Your task to perform on an android device: open a bookmark in the chrome app Image 0: 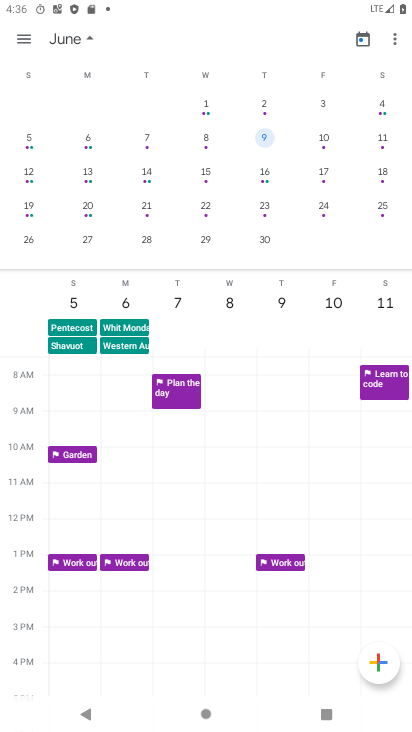
Step 0: press home button
Your task to perform on an android device: open a bookmark in the chrome app Image 1: 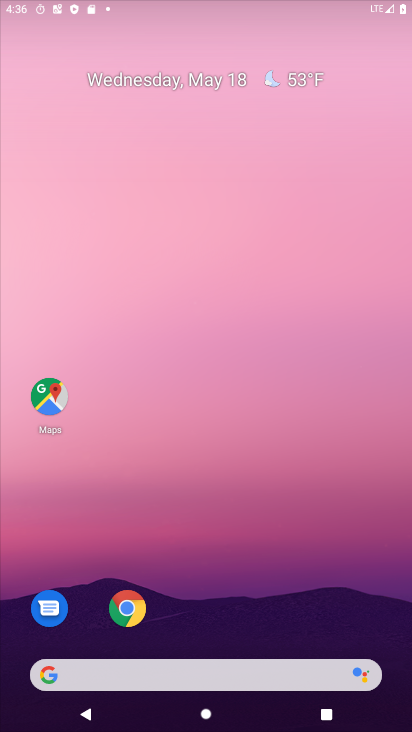
Step 1: drag from (315, 652) to (330, 19)
Your task to perform on an android device: open a bookmark in the chrome app Image 2: 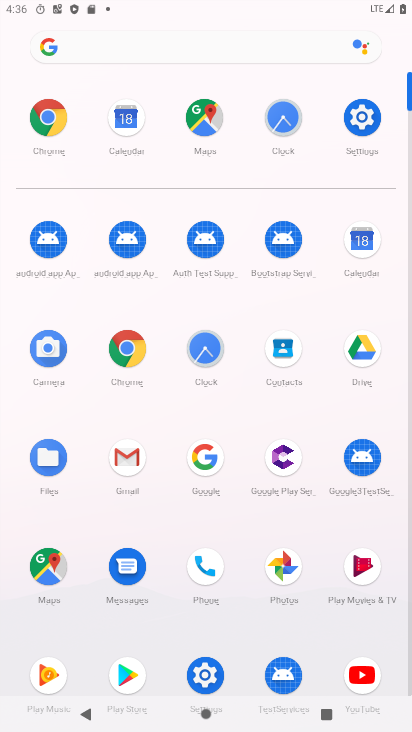
Step 2: click (132, 357)
Your task to perform on an android device: open a bookmark in the chrome app Image 3: 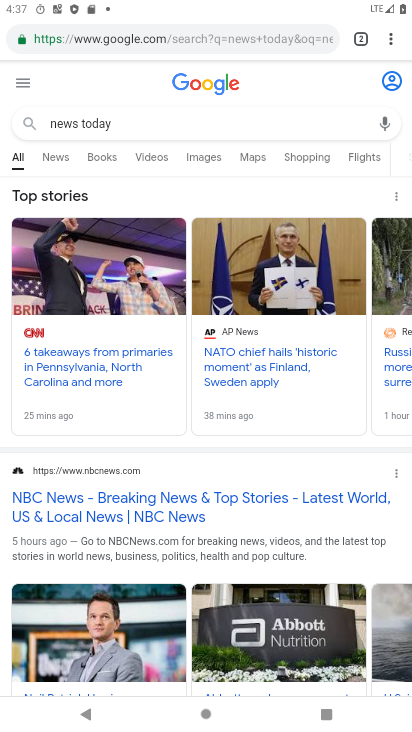
Step 3: click (397, 44)
Your task to perform on an android device: open a bookmark in the chrome app Image 4: 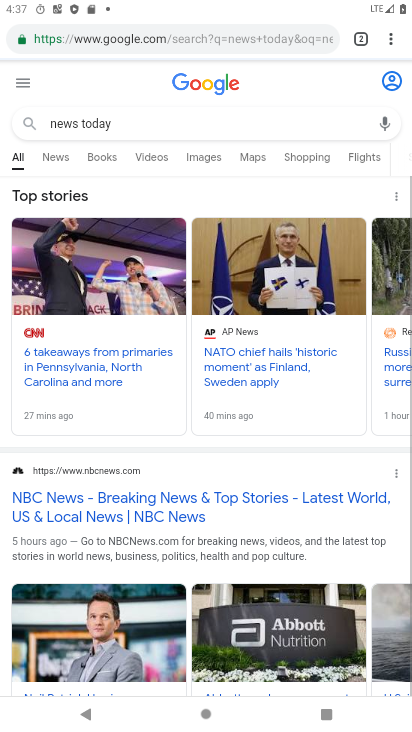
Step 4: click (389, 45)
Your task to perform on an android device: open a bookmark in the chrome app Image 5: 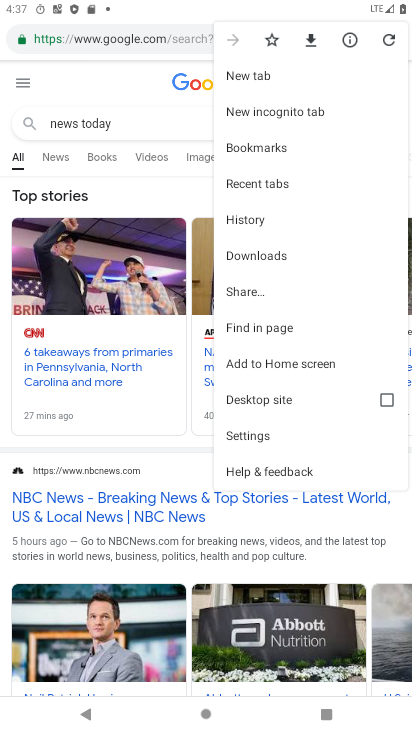
Step 5: click (315, 143)
Your task to perform on an android device: open a bookmark in the chrome app Image 6: 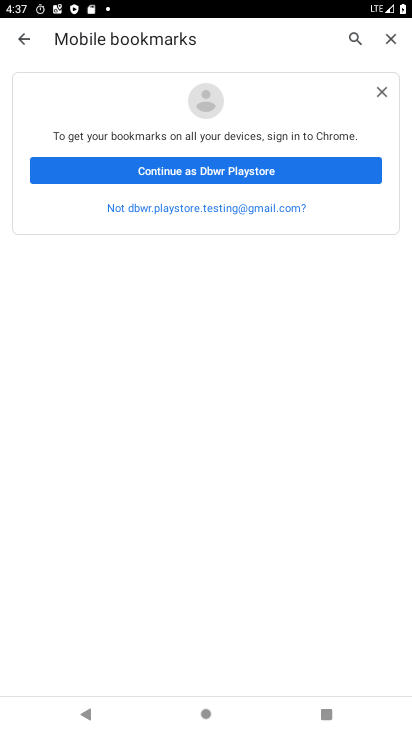
Step 6: press home button
Your task to perform on an android device: open a bookmark in the chrome app Image 7: 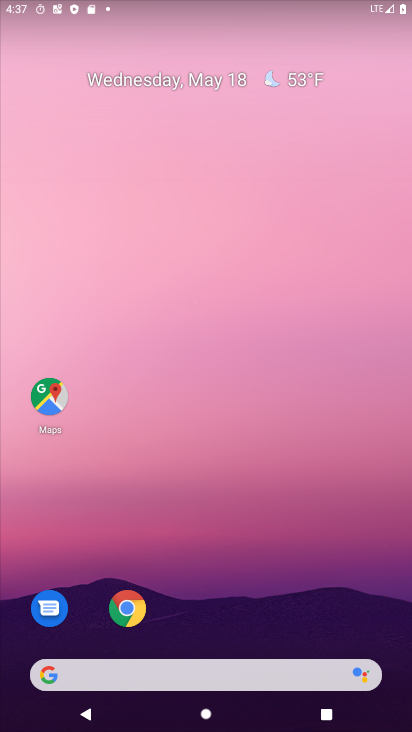
Step 7: drag from (144, 690) to (204, 48)
Your task to perform on an android device: open a bookmark in the chrome app Image 8: 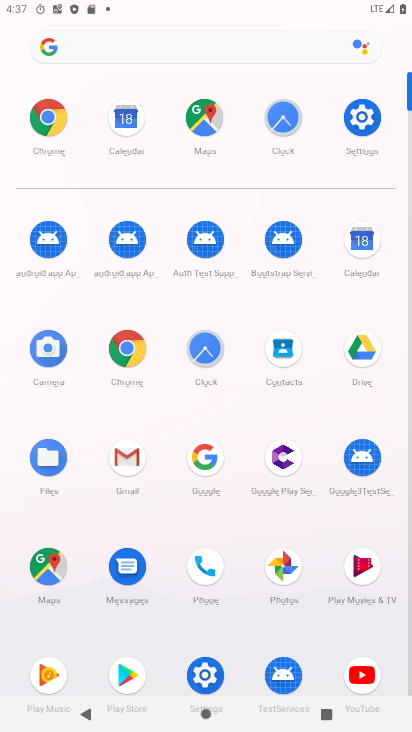
Step 8: click (127, 356)
Your task to perform on an android device: open a bookmark in the chrome app Image 9: 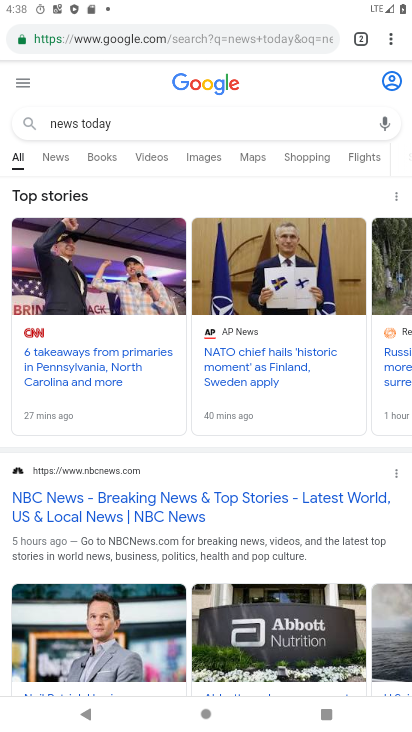
Step 9: click (393, 41)
Your task to perform on an android device: open a bookmark in the chrome app Image 10: 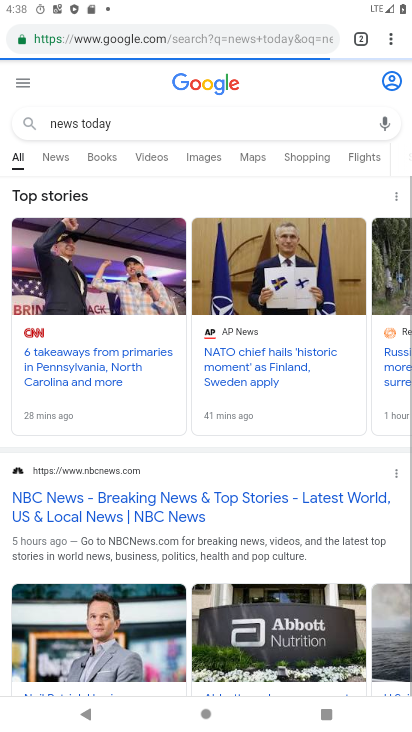
Step 10: click (389, 43)
Your task to perform on an android device: open a bookmark in the chrome app Image 11: 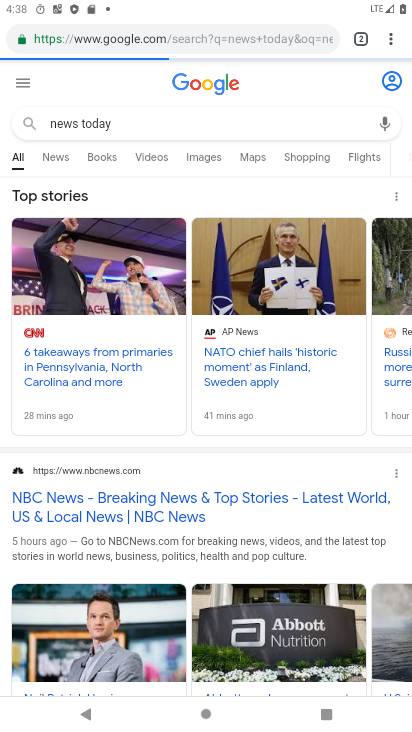
Step 11: click (388, 37)
Your task to perform on an android device: open a bookmark in the chrome app Image 12: 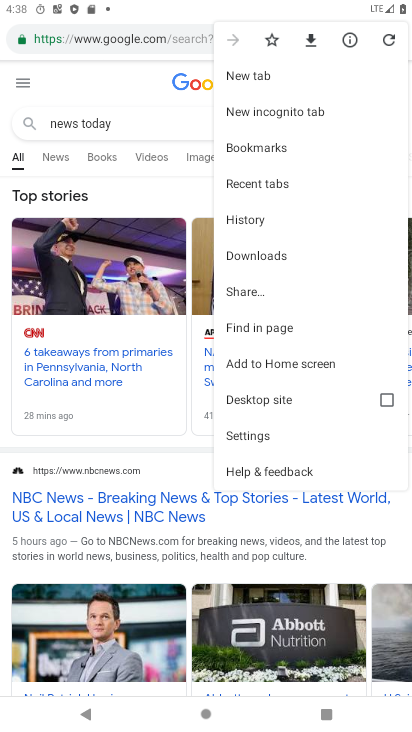
Step 12: click (282, 147)
Your task to perform on an android device: open a bookmark in the chrome app Image 13: 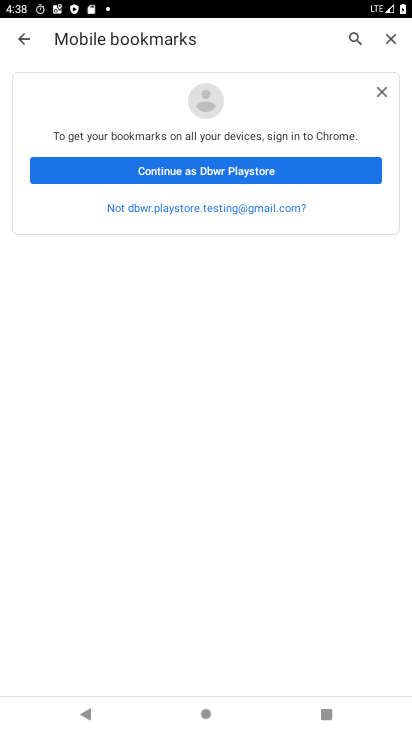
Step 13: task complete